Your task to perform on an android device: turn off location history Image 0: 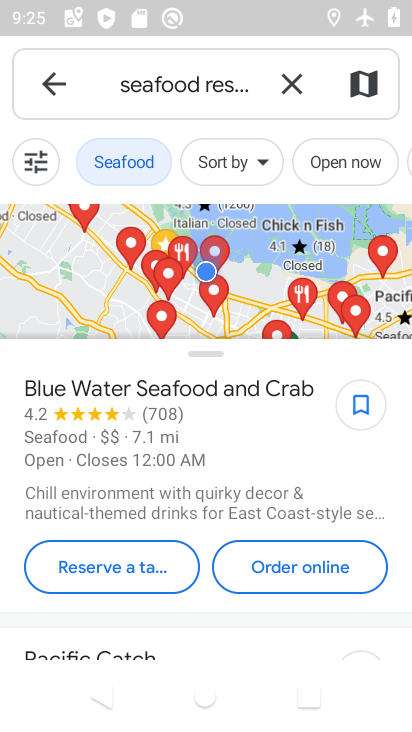
Step 0: press home button
Your task to perform on an android device: turn off location history Image 1: 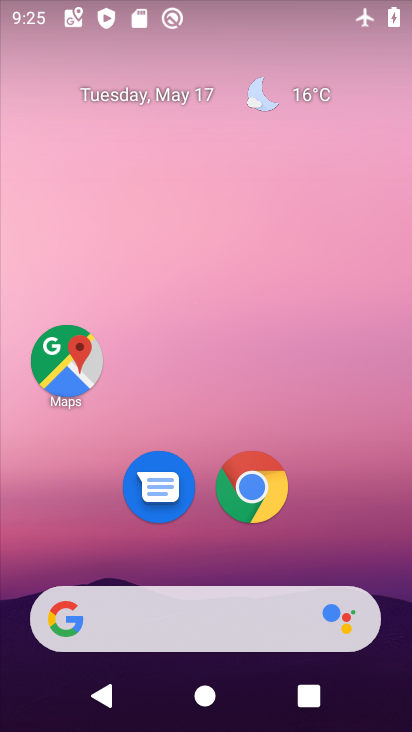
Step 1: drag from (203, 504) to (224, 8)
Your task to perform on an android device: turn off location history Image 2: 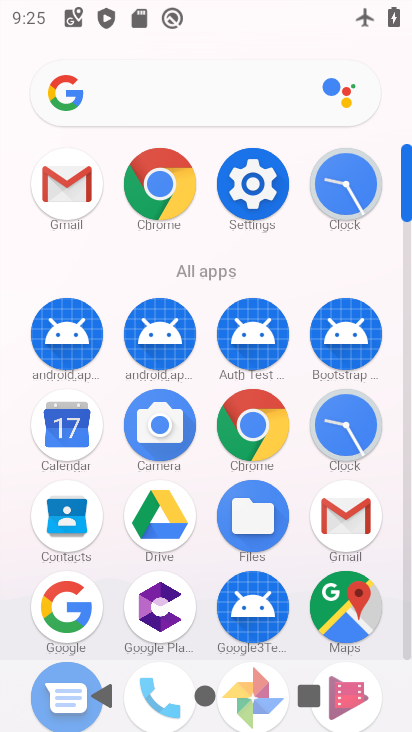
Step 2: click (256, 212)
Your task to perform on an android device: turn off location history Image 3: 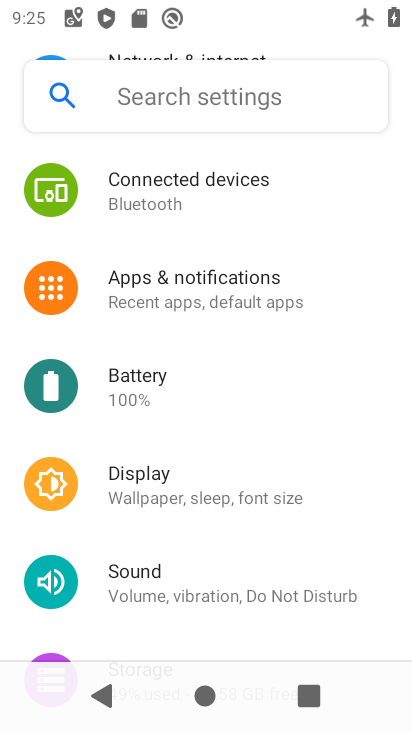
Step 3: drag from (203, 523) to (243, 294)
Your task to perform on an android device: turn off location history Image 4: 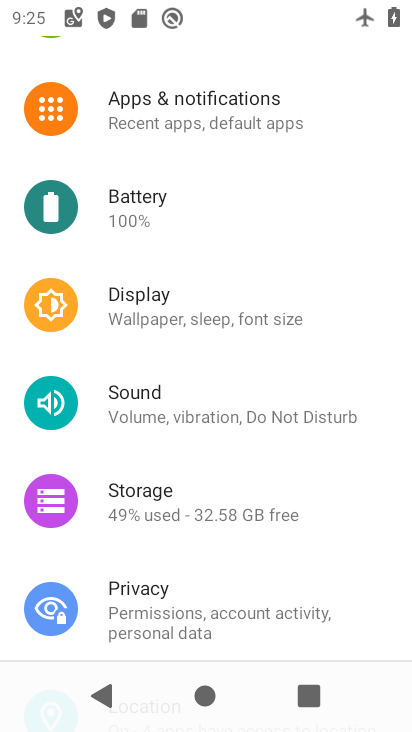
Step 4: drag from (178, 543) to (222, 304)
Your task to perform on an android device: turn off location history Image 5: 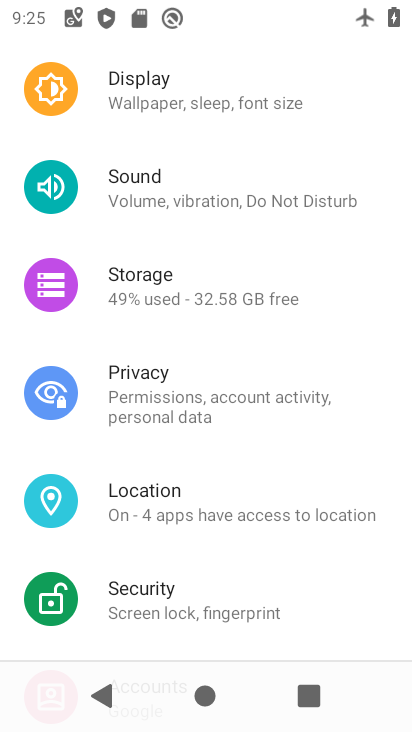
Step 5: click (180, 502)
Your task to perform on an android device: turn off location history Image 6: 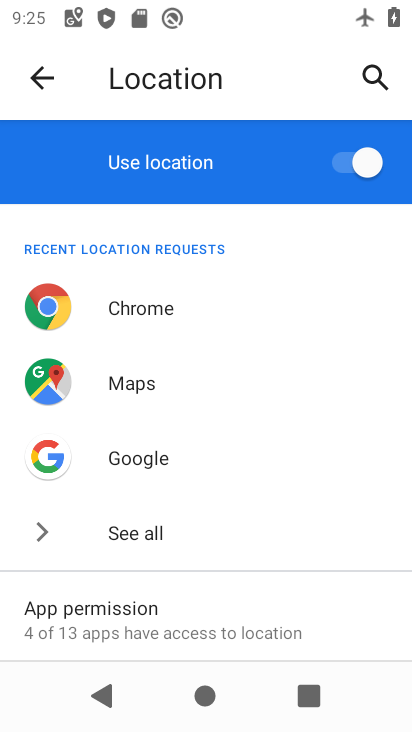
Step 6: drag from (184, 567) to (220, 364)
Your task to perform on an android device: turn off location history Image 7: 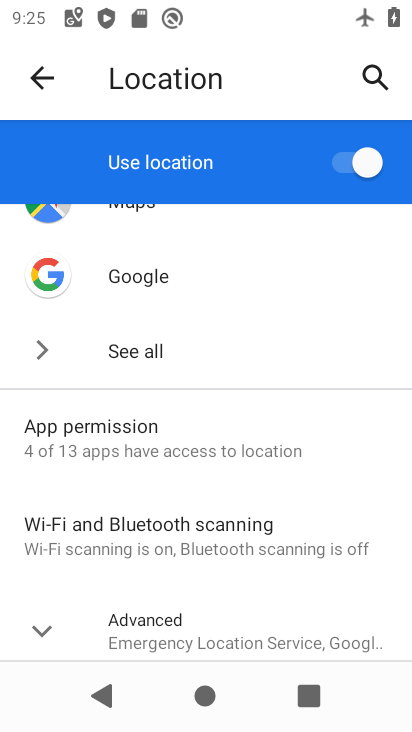
Step 7: drag from (156, 580) to (191, 438)
Your task to perform on an android device: turn off location history Image 8: 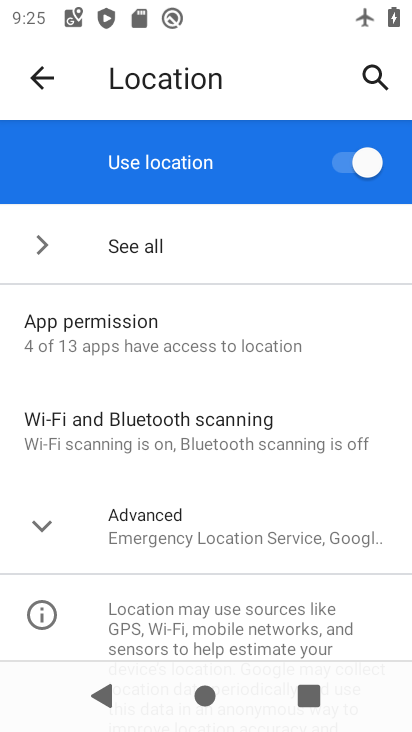
Step 8: click (151, 536)
Your task to perform on an android device: turn off location history Image 9: 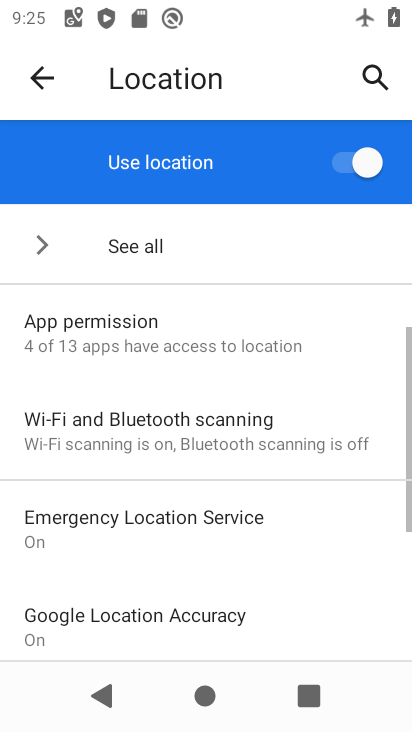
Step 9: drag from (158, 582) to (265, 218)
Your task to perform on an android device: turn off location history Image 10: 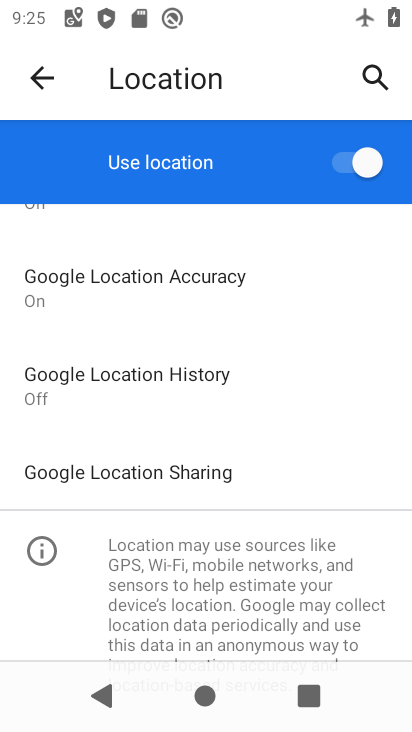
Step 10: click (192, 385)
Your task to perform on an android device: turn off location history Image 11: 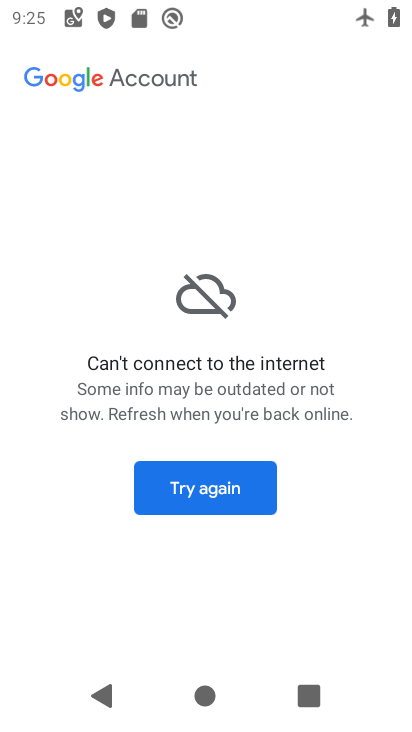
Step 11: click (202, 498)
Your task to perform on an android device: turn off location history Image 12: 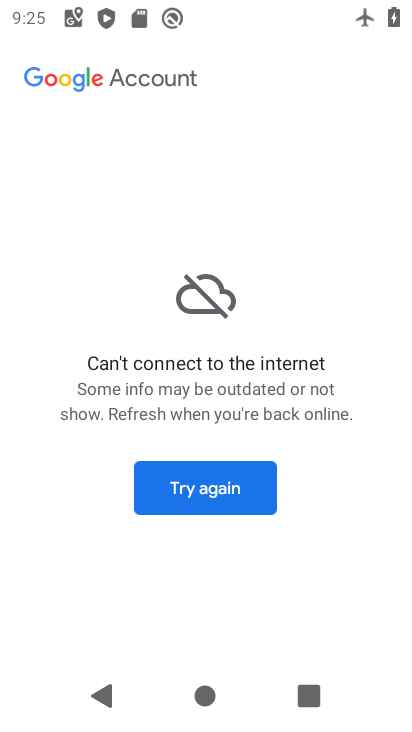
Step 12: click (202, 496)
Your task to perform on an android device: turn off location history Image 13: 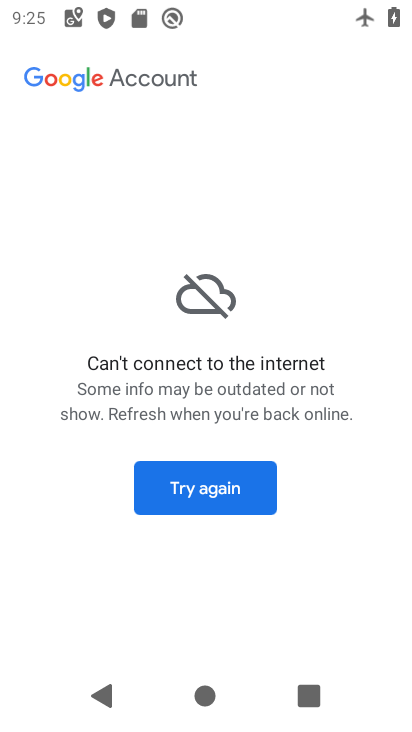
Step 13: task complete